Your task to perform on an android device: Show me recent news Image 0: 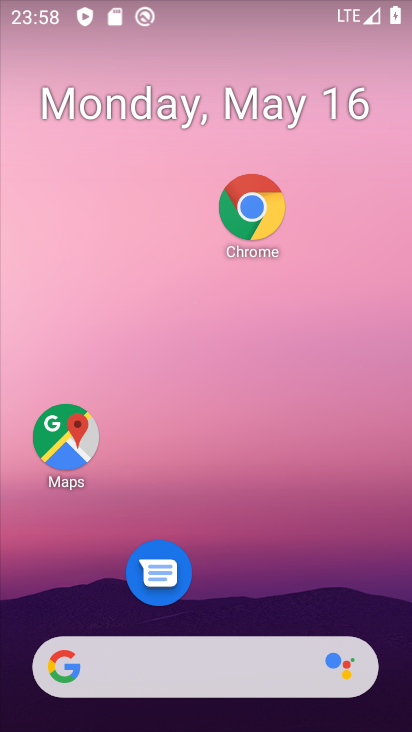
Step 0: drag from (268, 645) to (399, 351)
Your task to perform on an android device: Show me recent news Image 1: 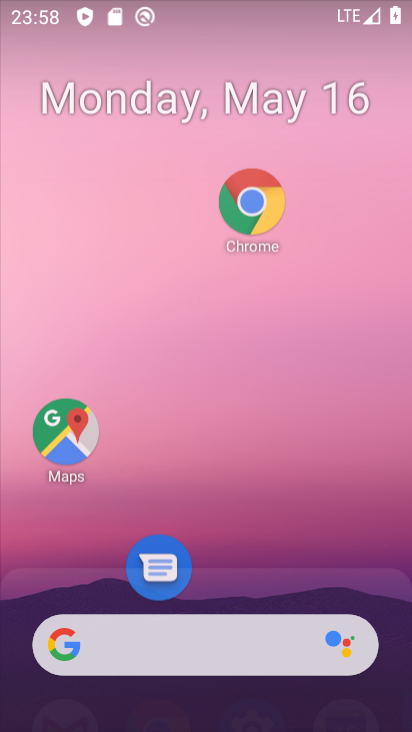
Step 1: click (251, 421)
Your task to perform on an android device: Show me recent news Image 2: 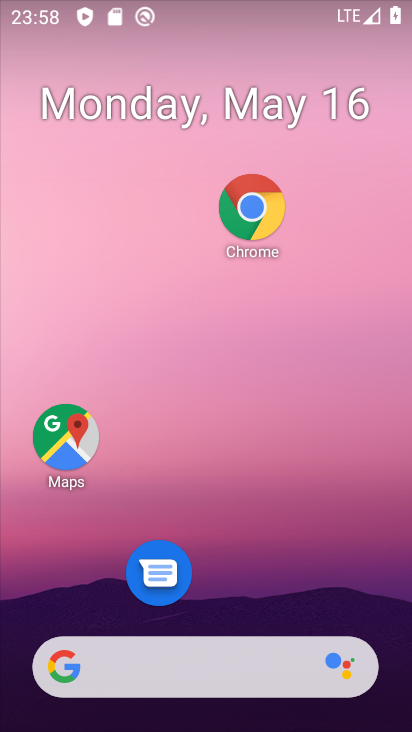
Step 2: drag from (308, 640) to (290, 43)
Your task to perform on an android device: Show me recent news Image 3: 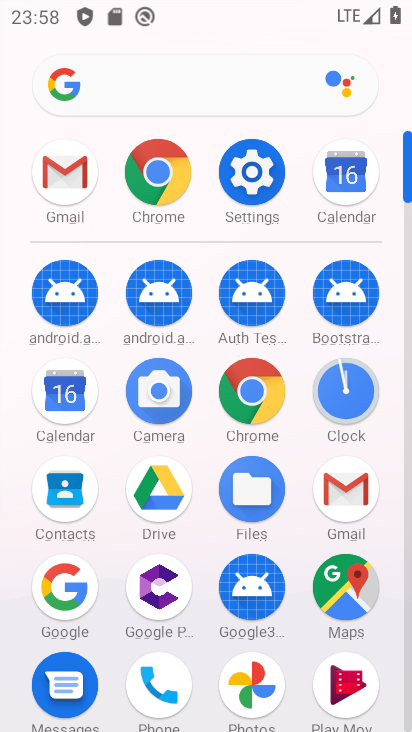
Step 3: click (261, 407)
Your task to perform on an android device: Show me recent news Image 4: 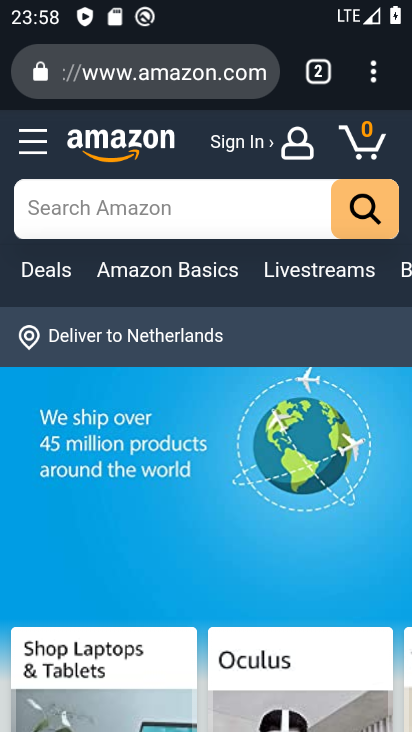
Step 4: click (204, 62)
Your task to perform on an android device: Show me recent news Image 5: 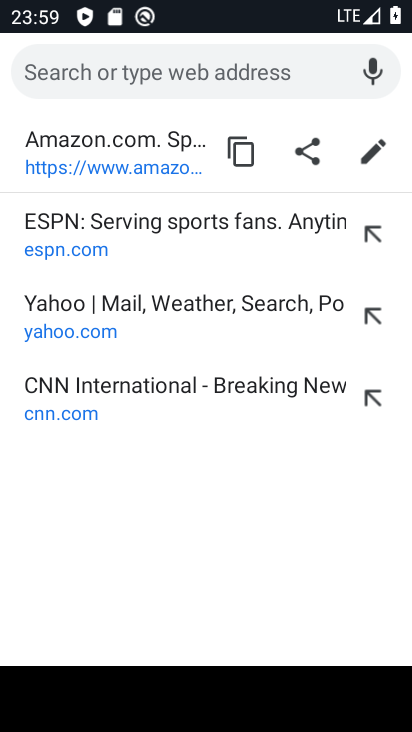
Step 5: type "recent news"
Your task to perform on an android device: Show me recent news Image 6: 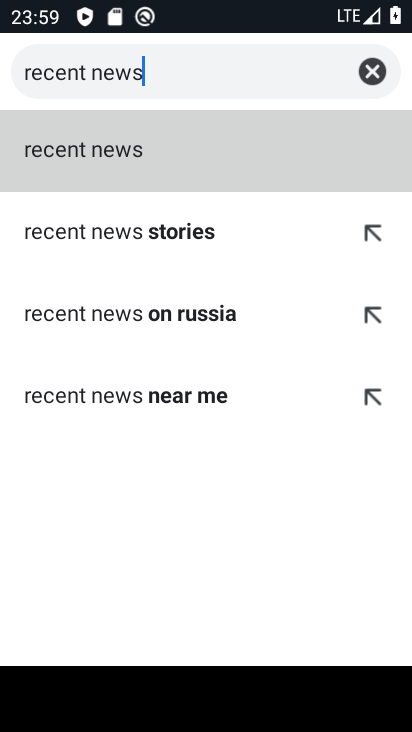
Step 6: click (139, 154)
Your task to perform on an android device: Show me recent news Image 7: 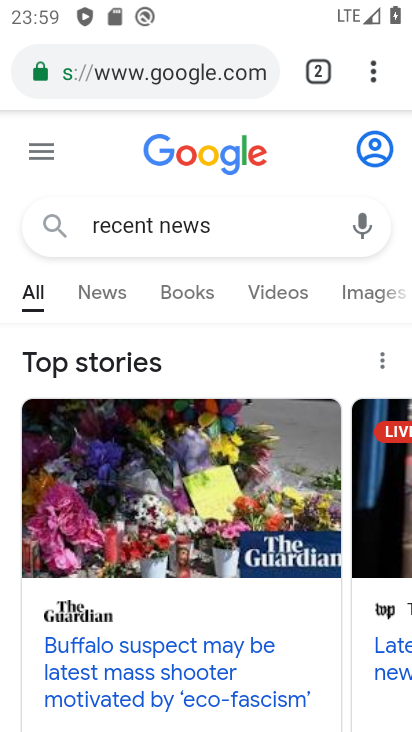
Step 7: task complete